Your task to perform on an android device: turn on showing notifications on the lock screen Image 0: 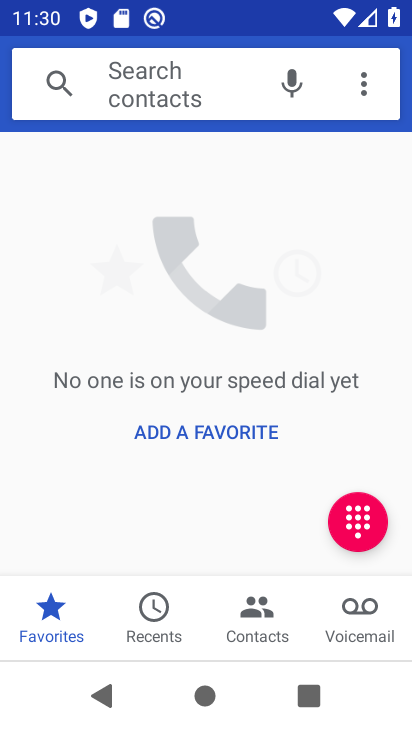
Step 0: press home button
Your task to perform on an android device: turn on showing notifications on the lock screen Image 1: 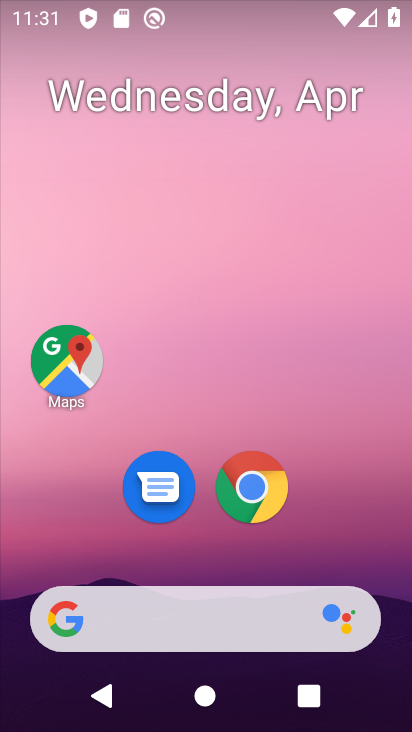
Step 1: drag from (360, 468) to (341, 23)
Your task to perform on an android device: turn on showing notifications on the lock screen Image 2: 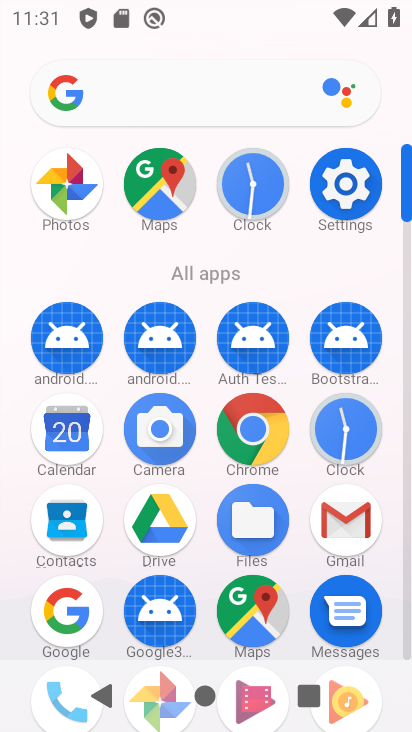
Step 2: click (340, 191)
Your task to perform on an android device: turn on showing notifications on the lock screen Image 3: 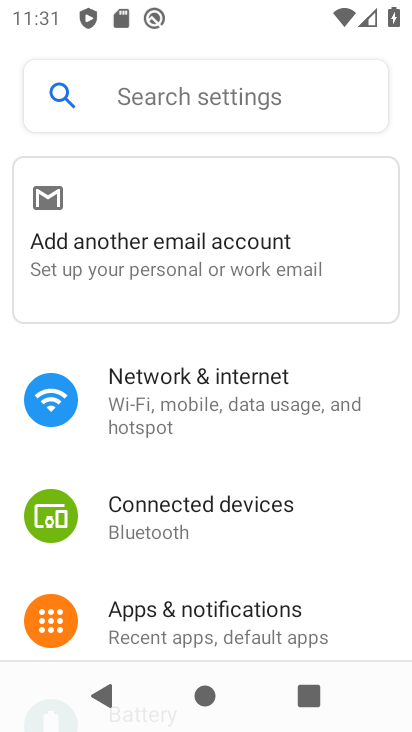
Step 3: click (151, 621)
Your task to perform on an android device: turn on showing notifications on the lock screen Image 4: 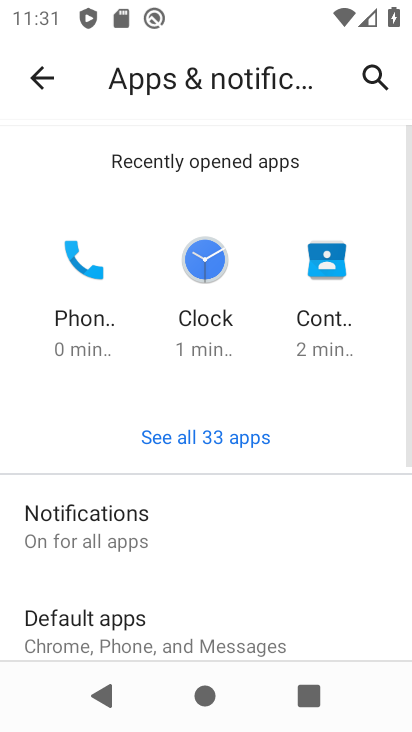
Step 4: click (92, 525)
Your task to perform on an android device: turn on showing notifications on the lock screen Image 5: 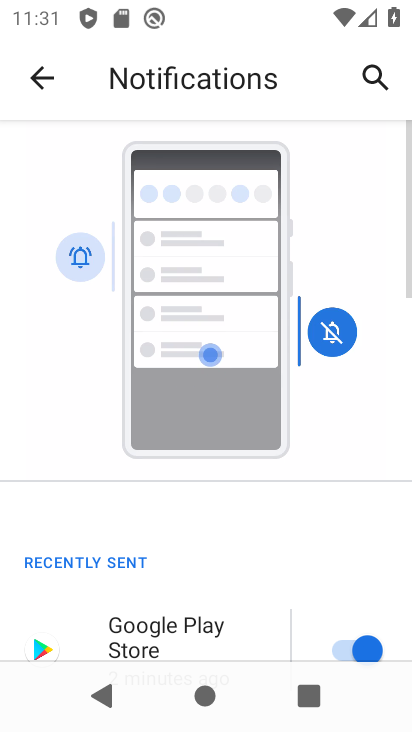
Step 5: drag from (158, 609) to (140, 233)
Your task to perform on an android device: turn on showing notifications on the lock screen Image 6: 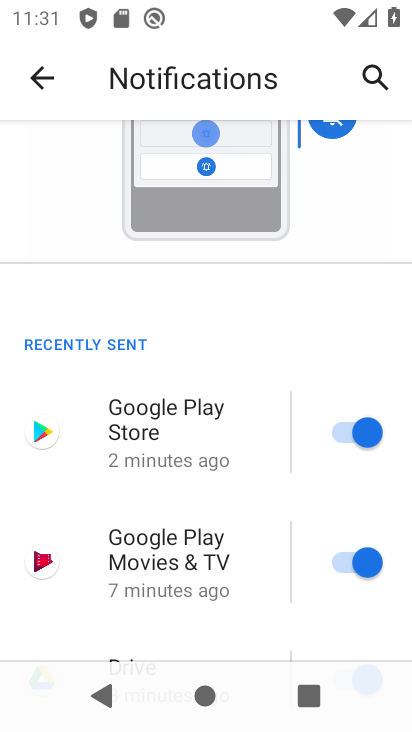
Step 6: drag from (150, 470) to (149, 194)
Your task to perform on an android device: turn on showing notifications on the lock screen Image 7: 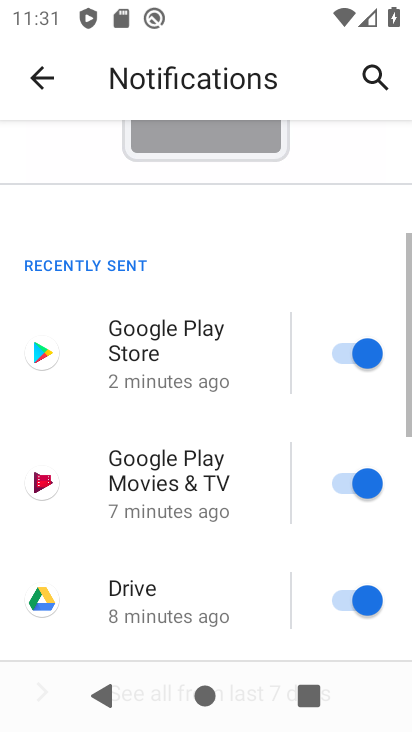
Step 7: drag from (133, 485) to (139, 188)
Your task to perform on an android device: turn on showing notifications on the lock screen Image 8: 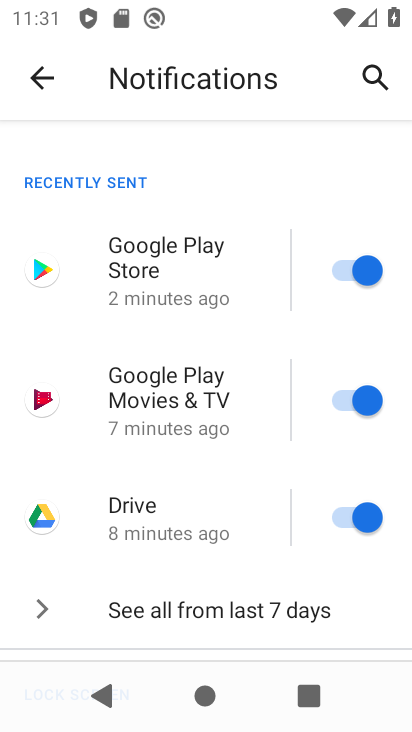
Step 8: drag from (183, 412) to (172, 265)
Your task to perform on an android device: turn on showing notifications on the lock screen Image 9: 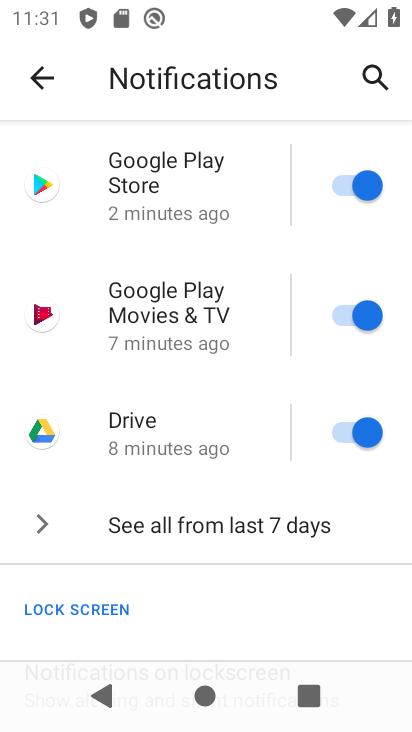
Step 9: drag from (223, 581) to (210, 340)
Your task to perform on an android device: turn on showing notifications on the lock screen Image 10: 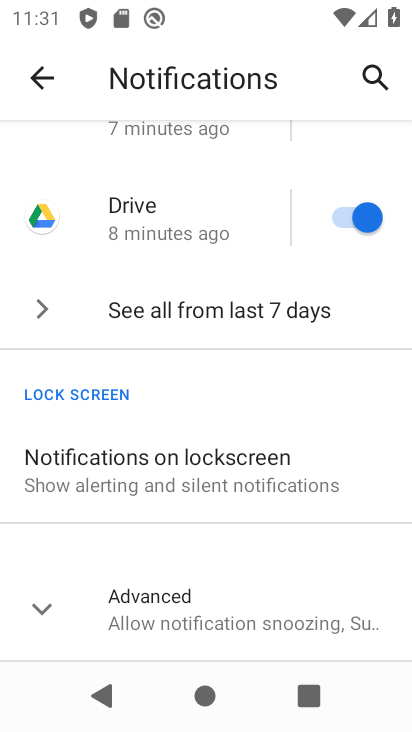
Step 10: click (153, 480)
Your task to perform on an android device: turn on showing notifications on the lock screen Image 11: 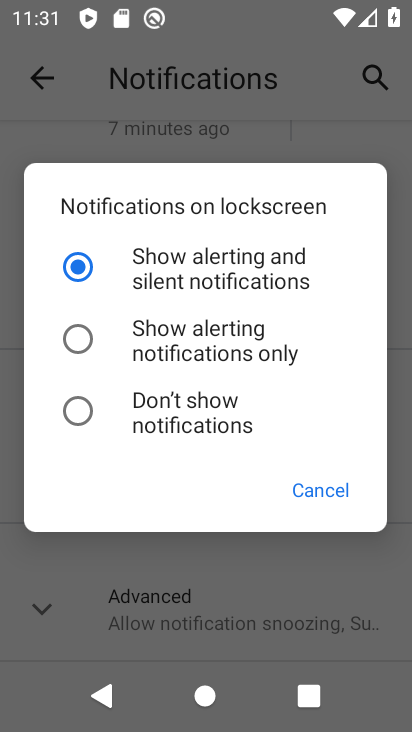
Step 11: task complete